Your task to perform on an android device: Go to location settings Image 0: 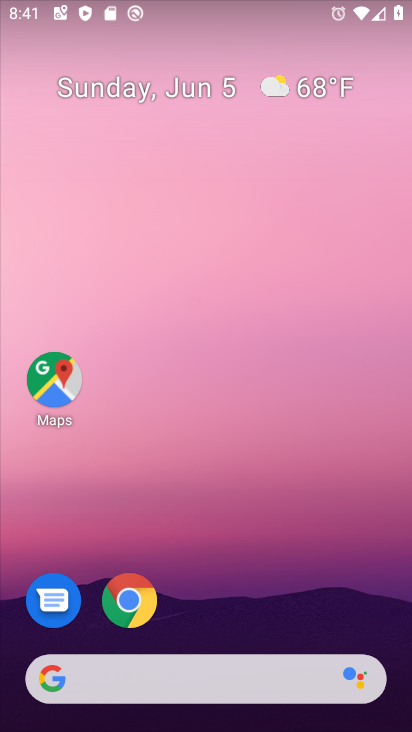
Step 0: drag from (399, 597) to (270, 72)
Your task to perform on an android device: Go to location settings Image 1: 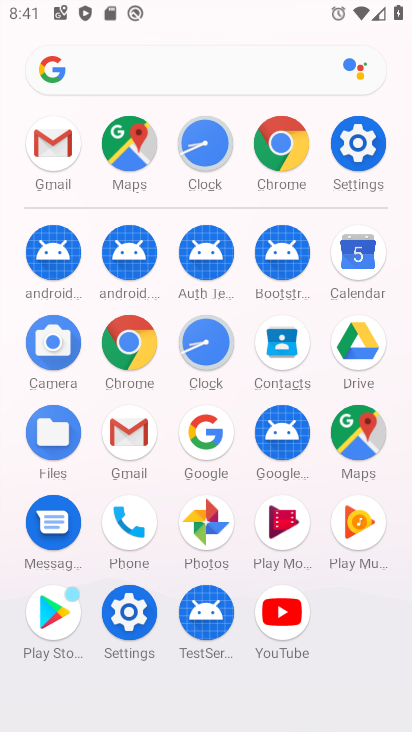
Step 1: click (122, 617)
Your task to perform on an android device: Go to location settings Image 2: 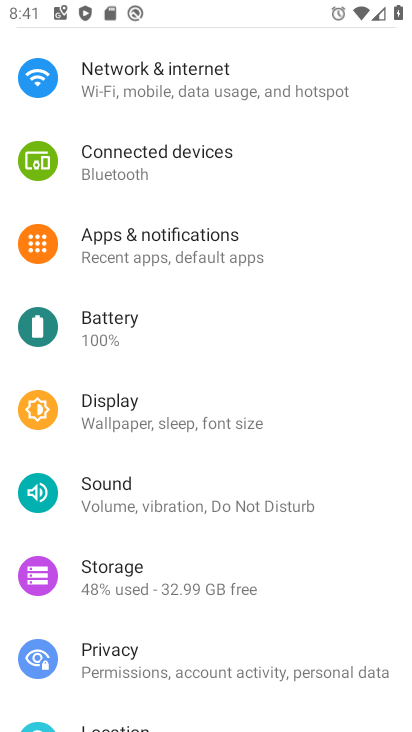
Step 2: click (125, 716)
Your task to perform on an android device: Go to location settings Image 3: 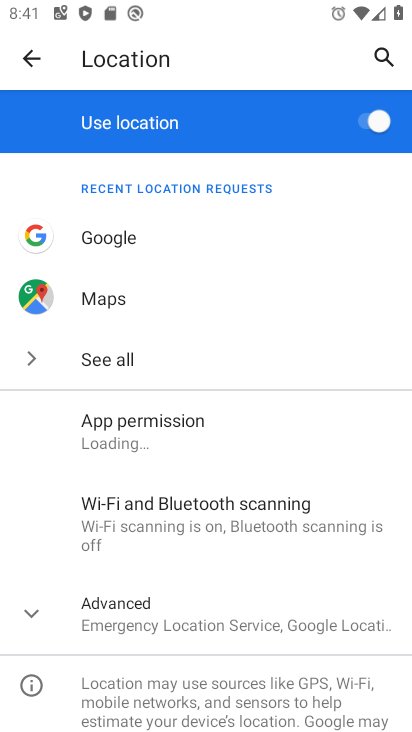
Step 3: task complete